Your task to perform on an android device: delete browsing data in the chrome app Image 0: 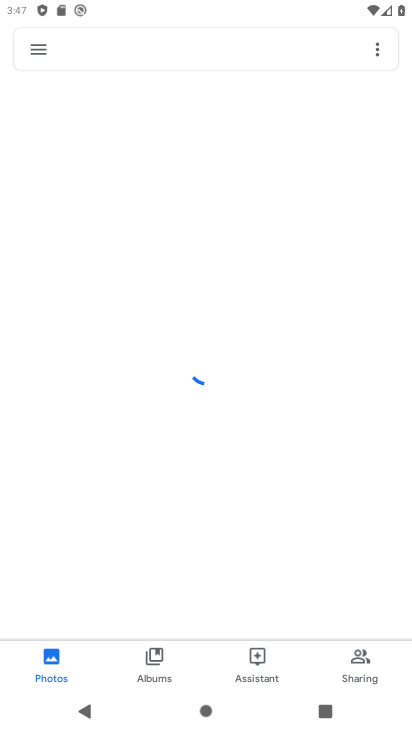
Step 0: press home button
Your task to perform on an android device: delete browsing data in the chrome app Image 1: 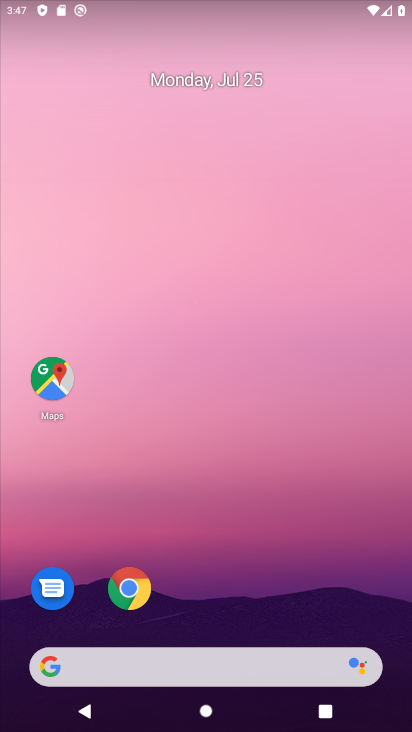
Step 1: click (118, 585)
Your task to perform on an android device: delete browsing data in the chrome app Image 2: 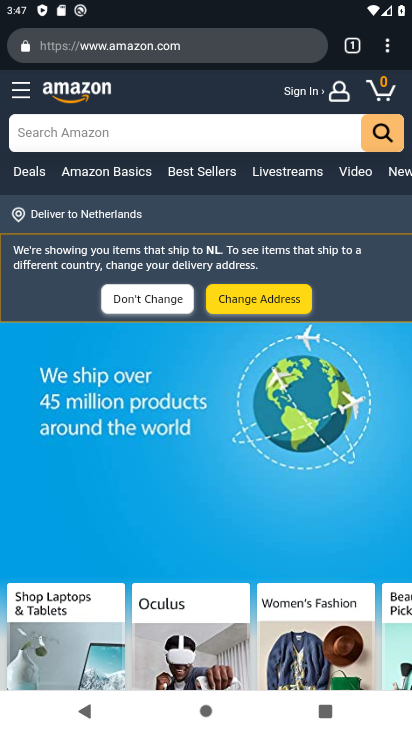
Step 2: click (392, 43)
Your task to perform on an android device: delete browsing data in the chrome app Image 3: 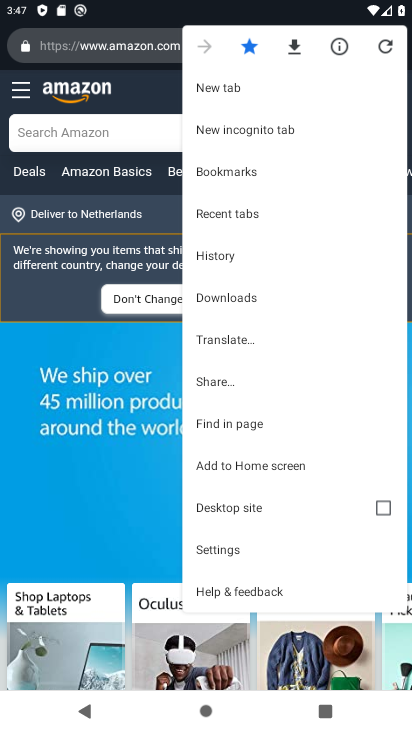
Step 3: click (204, 551)
Your task to perform on an android device: delete browsing data in the chrome app Image 4: 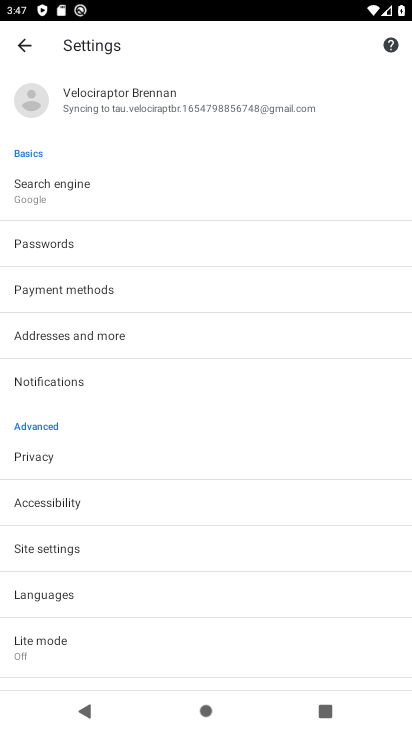
Step 4: click (20, 57)
Your task to perform on an android device: delete browsing data in the chrome app Image 5: 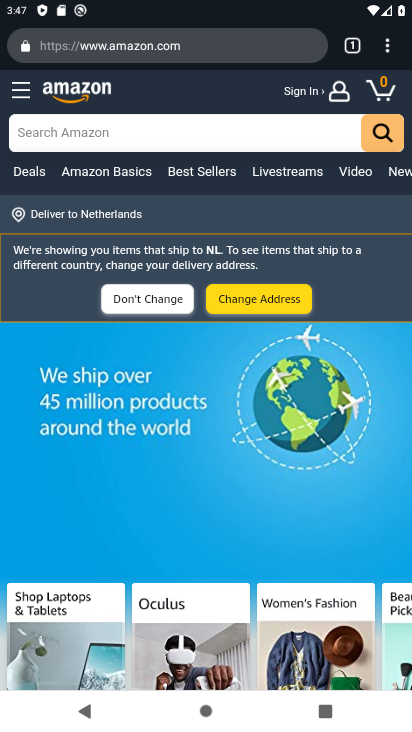
Step 5: click (396, 43)
Your task to perform on an android device: delete browsing data in the chrome app Image 6: 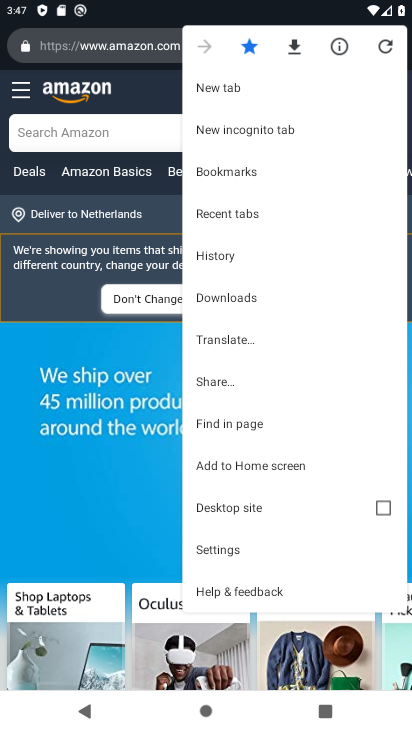
Step 6: click (234, 256)
Your task to perform on an android device: delete browsing data in the chrome app Image 7: 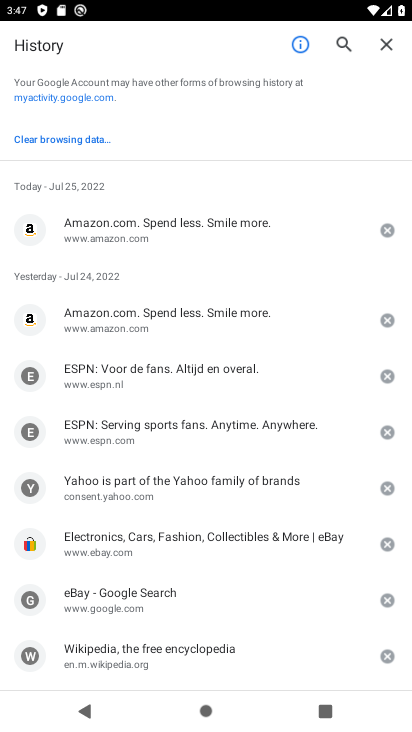
Step 7: click (71, 132)
Your task to perform on an android device: delete browsing data in the chrome app Image 8: 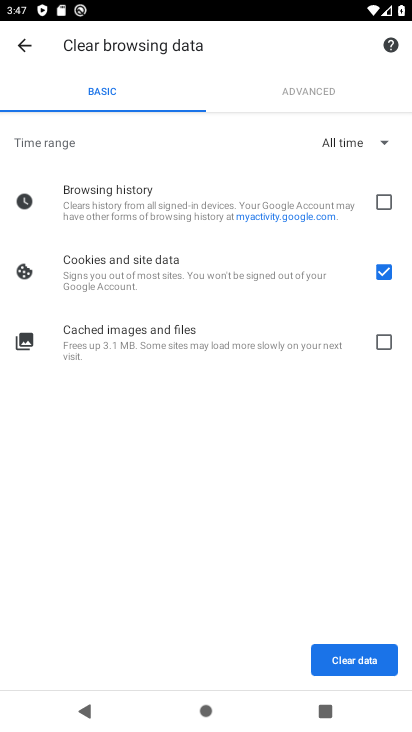
Step 8: click (382, 204)
Your task to perform on an android device: delete browsing data in the chrome app Image 9: 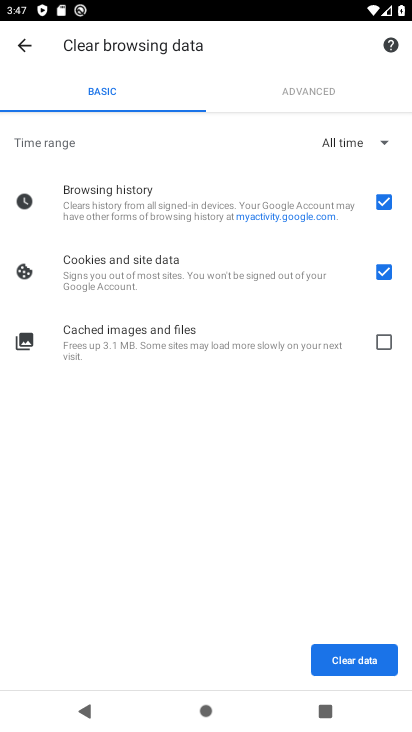
Step 9: click (382, 262)
Your task to perform on an android device: delete browsing data in the chrome app Image 10: 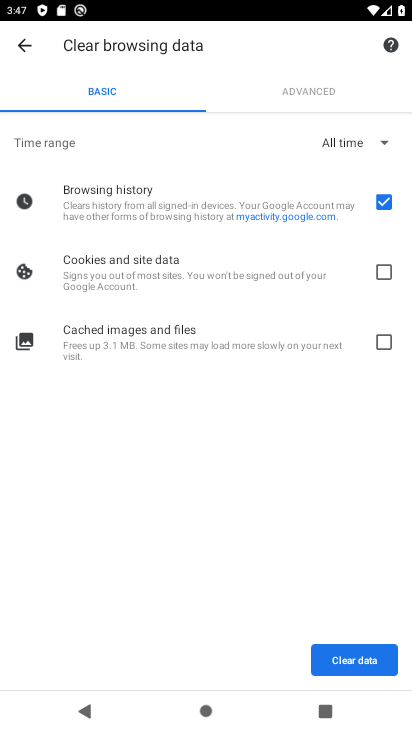
Step 10: click (383, 652)
Your task to perform on an android device: delete browsing data in the chrome app Image 11: 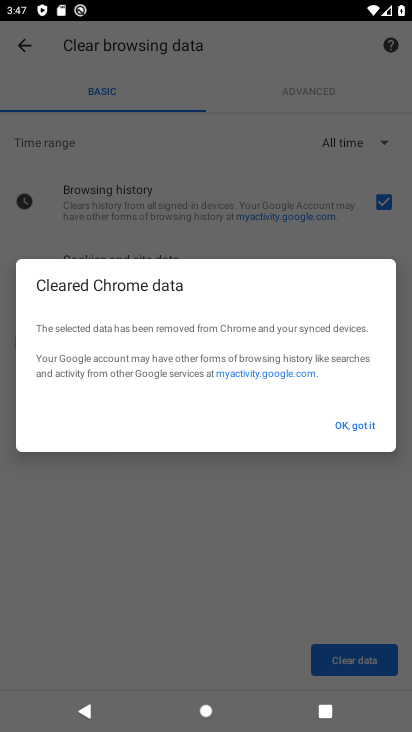
Step 11: click (361, 438)
Your task to perform on an android device: delete browsing data in the chrome app Image 12: 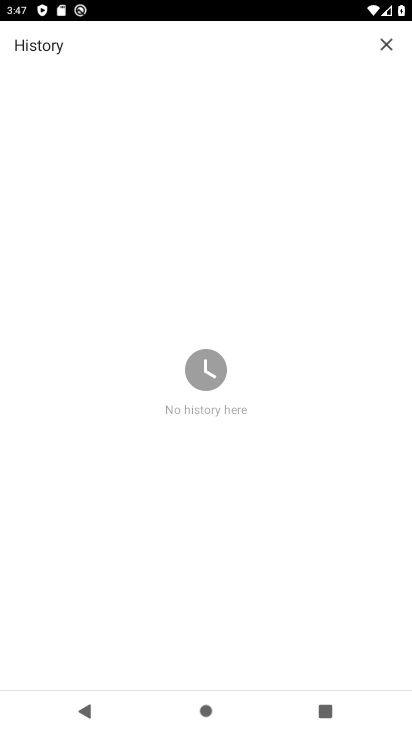
Step 12: task complete